Your task to perform on an android device: Open Youtube and go to the subscriptions tab Image 0: 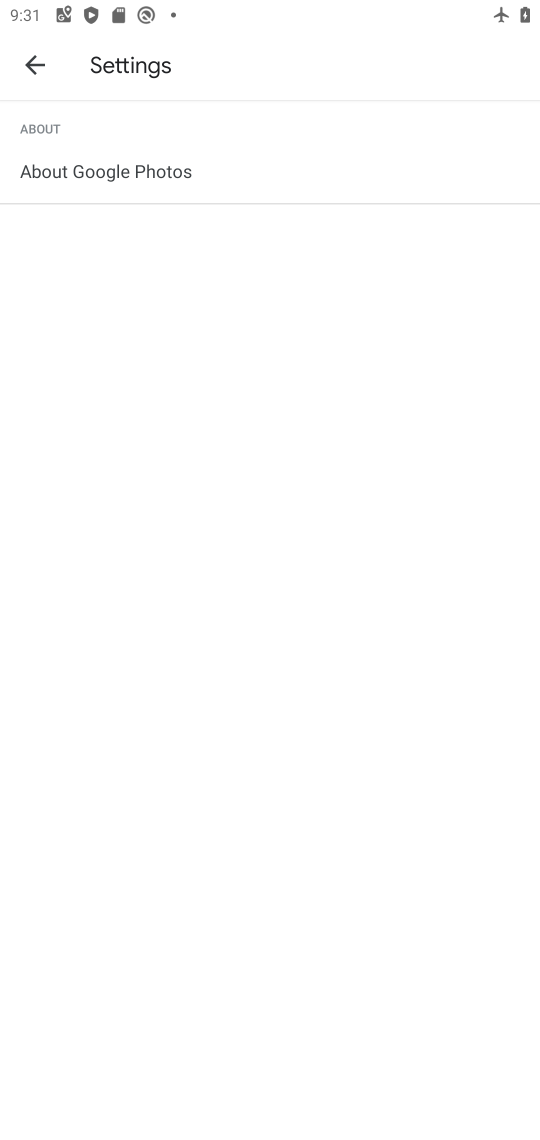
Step 0: press home button
Your task to perform on an android device: Open Youtube and go to the subscriptions tab Image 1: 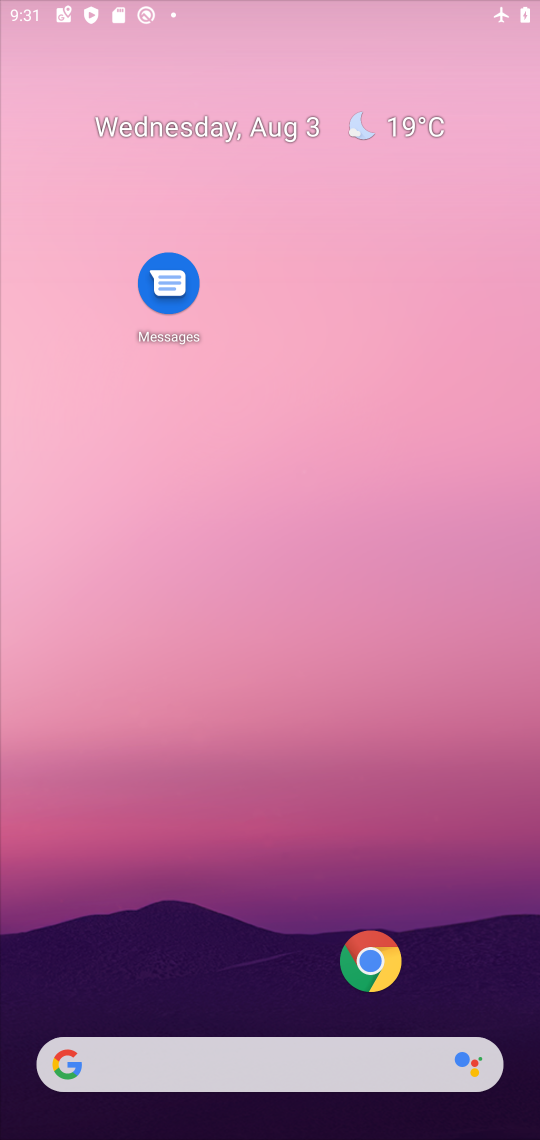
Step 1: drag from (290, 1075) to (343, 125)
Your task to perform on an android device: Open Youtube and go to the subscriptions tab Image 2: 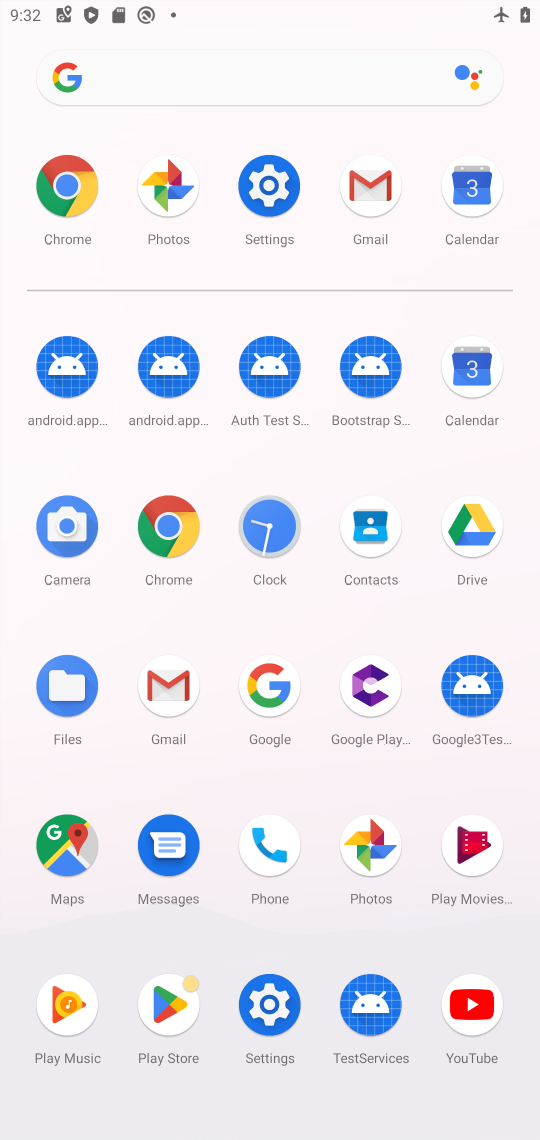
Step 2: click (470, 1016)
Your task to perform on an android device: Open Youtube and go to the subscriptions tab Image 3: 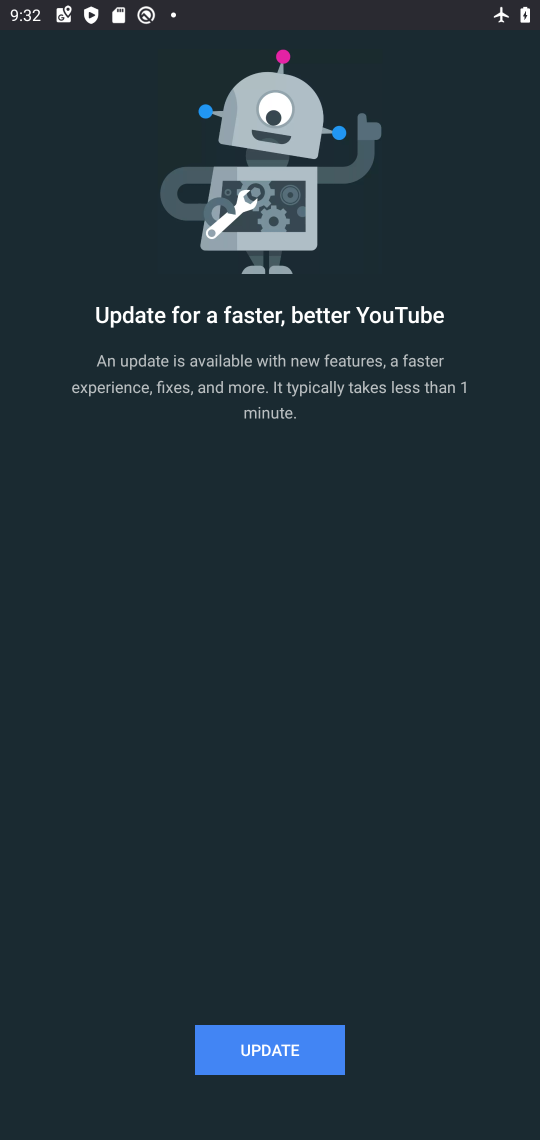
Step 3: click (246, 1038)
Your task to perform on an android device: Open Youtube and go to the subscriptions tab Image 4: 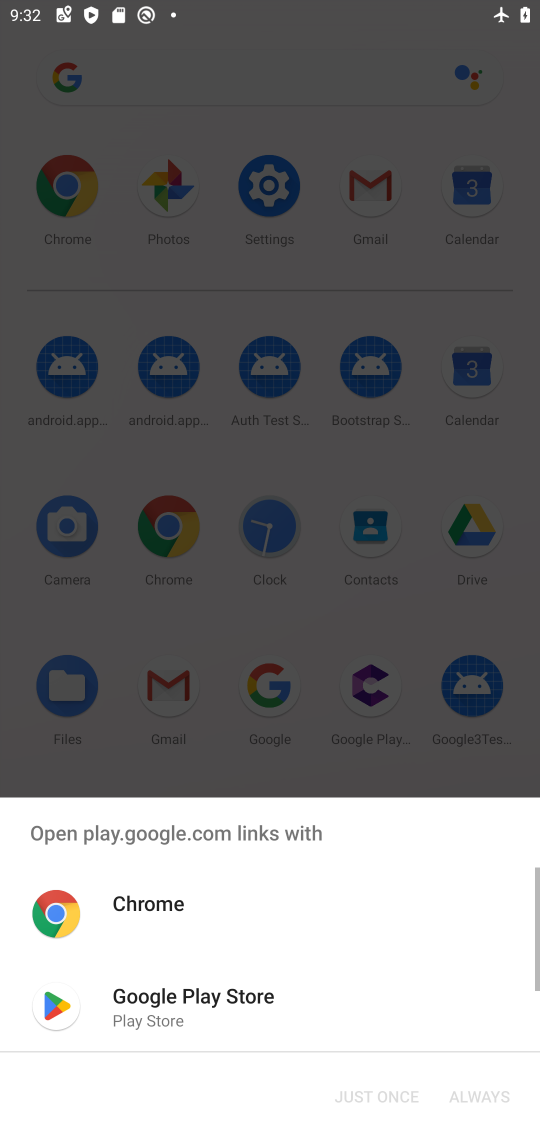
Step 4: click (246, 1035)
Your task to perform on an android device: Open Youtube and go to the subscriptions tab Image 5: 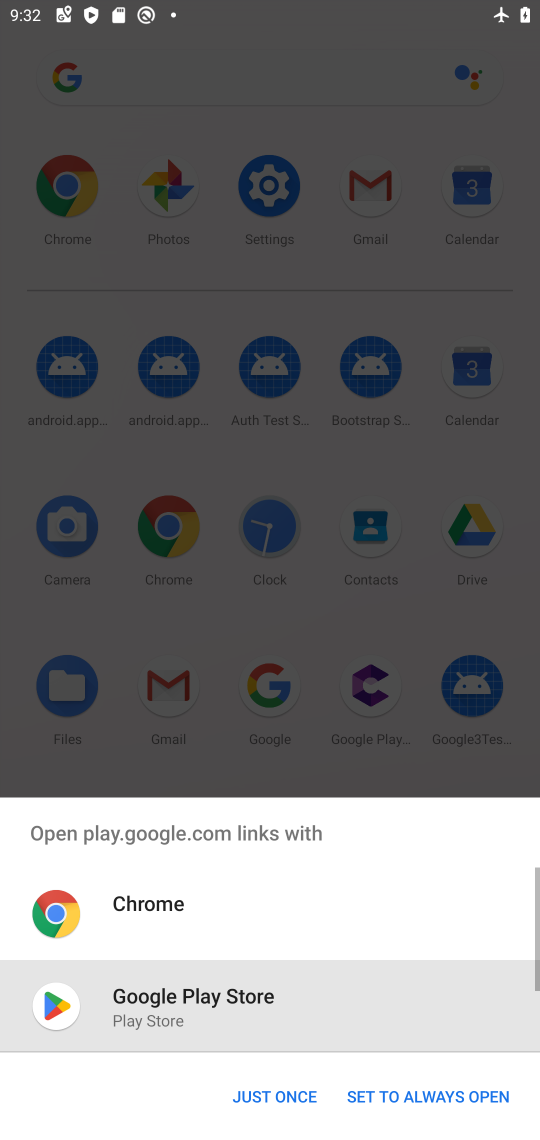
Step 5: click (281, 1104)
Your task to perform on an android device: Open Youtube and go to the subscriptions tab Image 6: 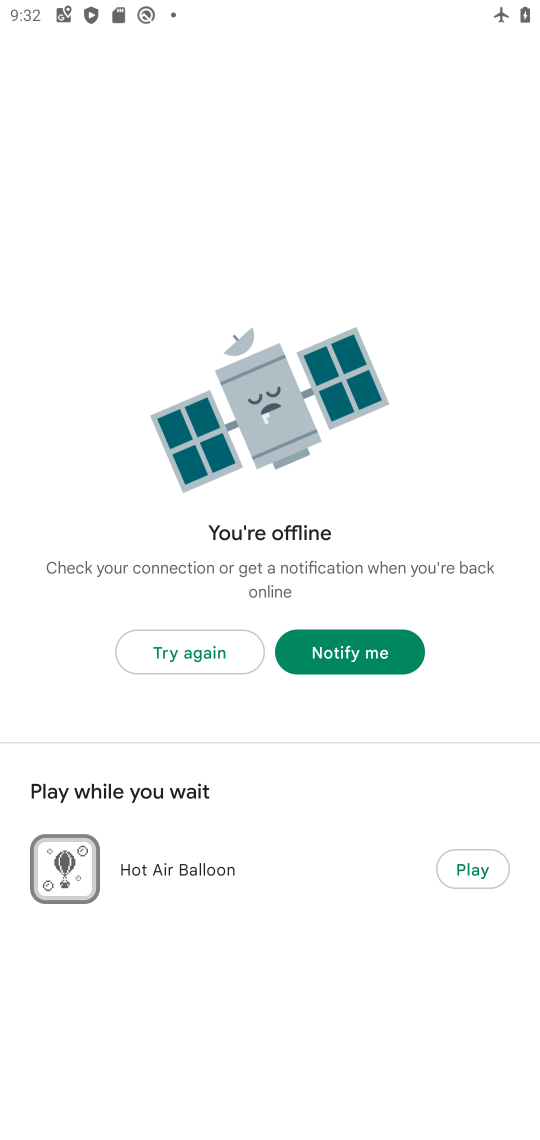
Step 6: click (301, 655)
Your task to perform on an android device: Open Youtube and go to the subscriptions tab Image 7: 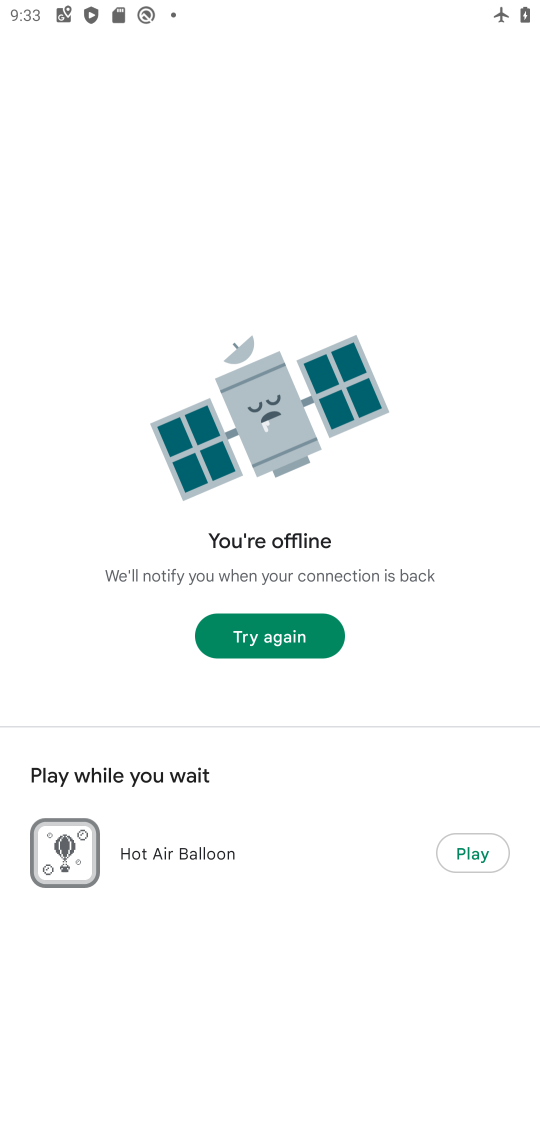
Step 7: task complete